Your task to perform on an android device: Go to sound settings Image 0: 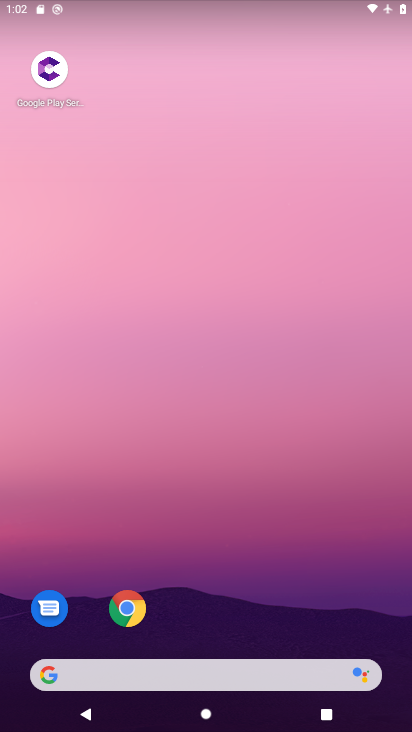
Step 0: drag from (259, 639) to (257, 151)
Your task to perform on an android device: Go to sound settings Image 1: 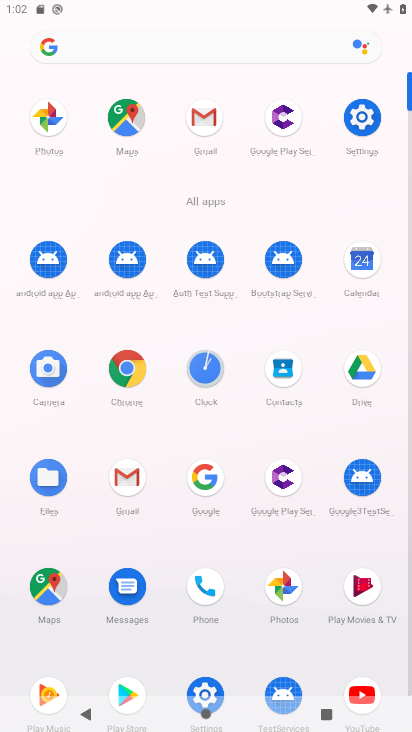
Step 1: click (365, 162)
Your task to perform on an android device: Go to sound settings Image 2: 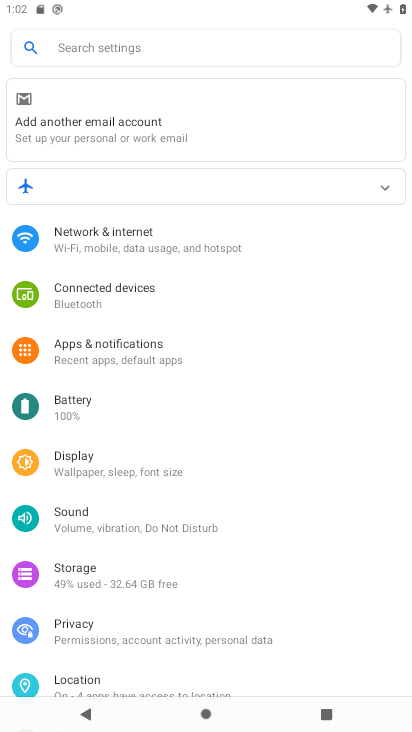
Step 2: click (142, 531)
Your task to perform on an android device: Go to sound settings Image 3: 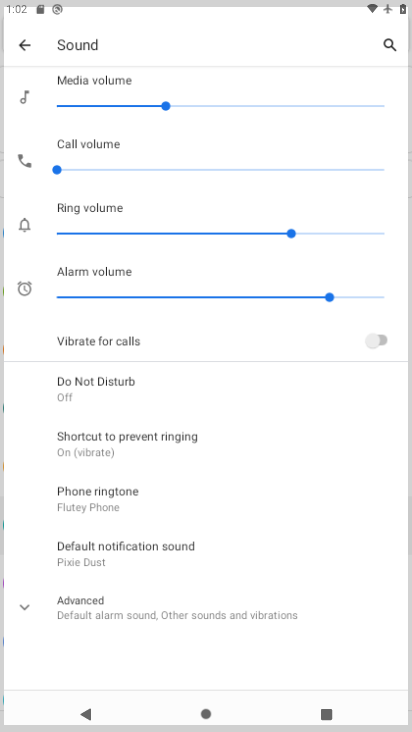
Step 3: task complete